Your task to perform on an android device: allow cookies in the chrome app Image 0: 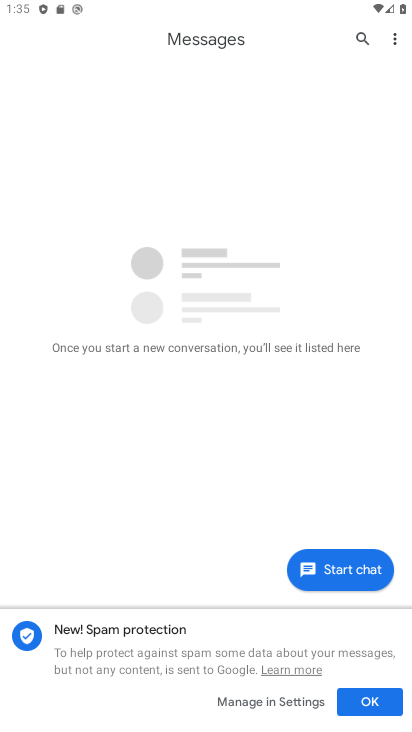
Step 0: press home button
Your task to perform on an android device: allow cookies in the chrome app Image 1: 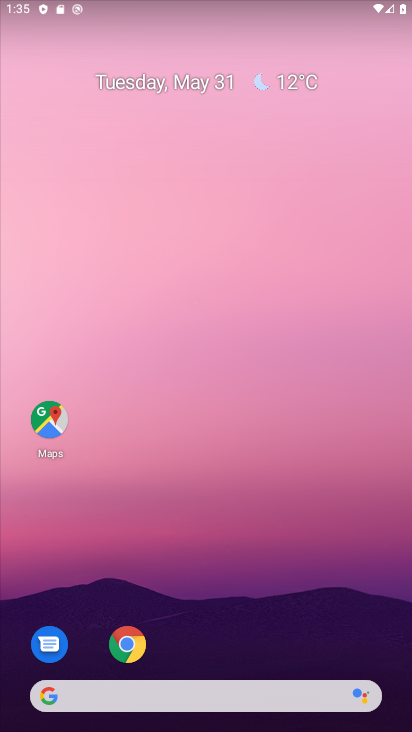
Step 1: drag from (146, 671) to (258, 179)
Your task to perform on an android device: allow cookies in the chrome app Image 2: 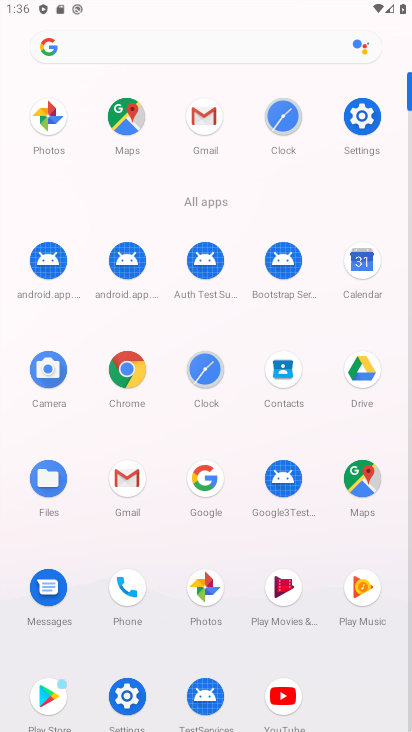
Step 2: click (142, 376)
Your task to perform on an android device: allow cookies in the chrome app Image 3: 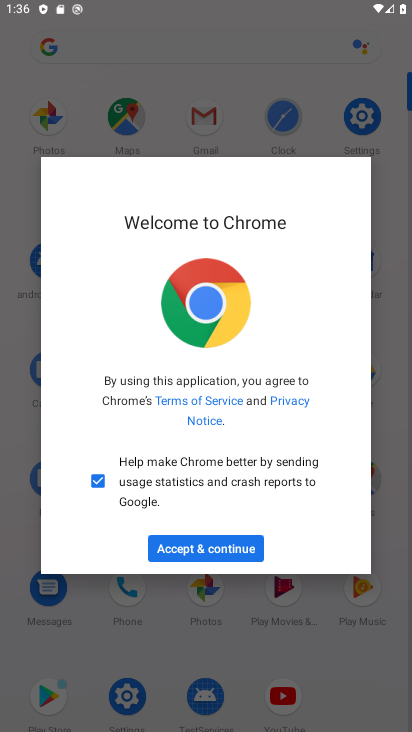
Step 3: click (230, 550)
Your task to perform on an android device: allow cookies in the chrome app Image 4: 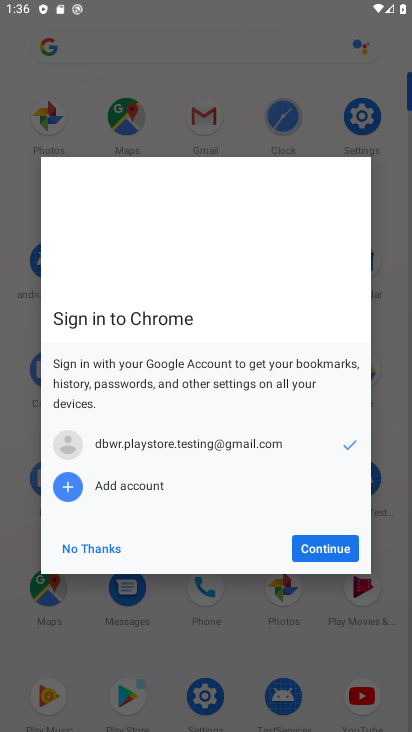
Step 4: click (343, 555)
Your task to perform on an android device: allow cookies in the chrome app Image 5: 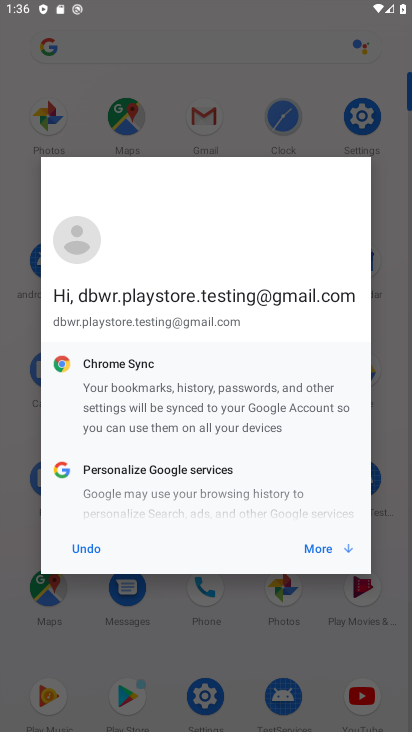
Step 5: click (343, 555)
Your task to perform on an android device: allow cookies in the chrome app Image 6: 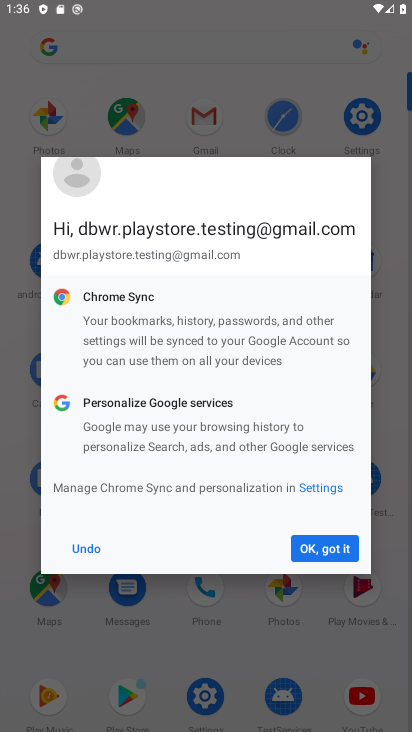
Step 6: click (343, 555)
Your task to perform on an android device: allow cookies in the chrome app Image 7: 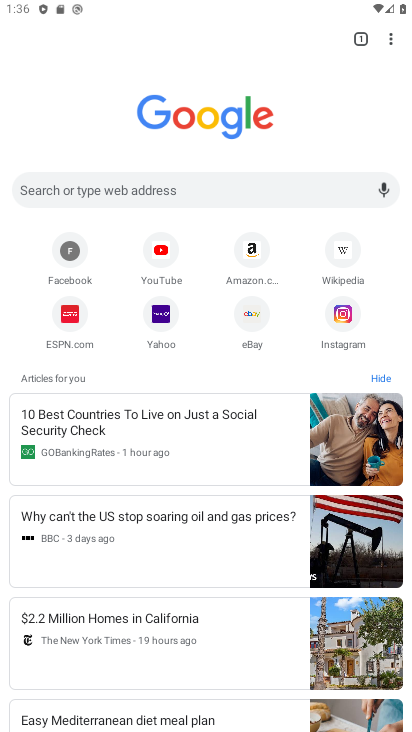
Step 7: drag from (392, 51) to (294, 331)
Your task to perform on an android device: allow cookies in the chrome app Image 8: 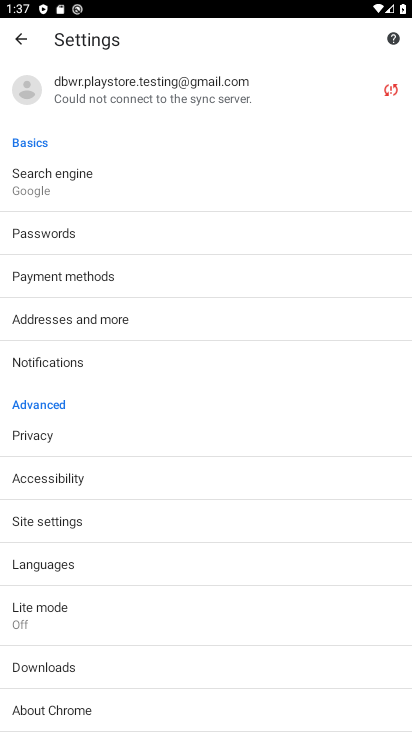
Step 8: drag from (179, 715) to (221, 504)
Your task to perform on an android device: allow cookies in the chrome app Image 9: 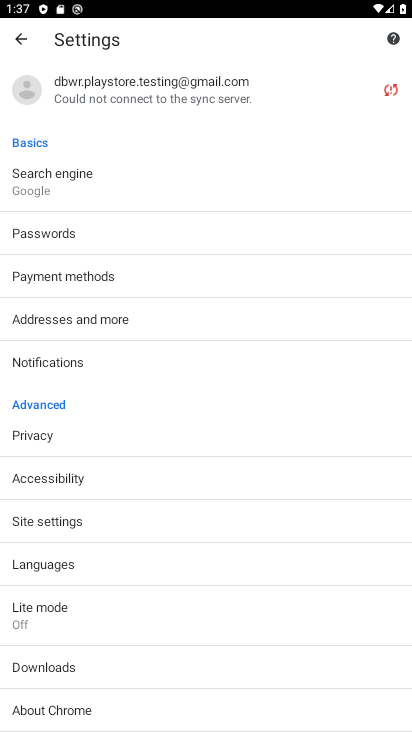
Step 9: click (110, 518)
Your task to perform on an android device: allow cookies in the chrome app Image 10: 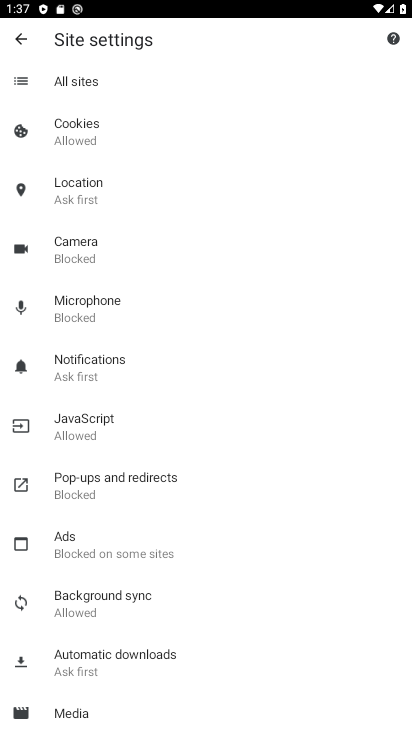
Step 10: task complete